Your task to perform on an android device: Turn on the flashlight Image 0: 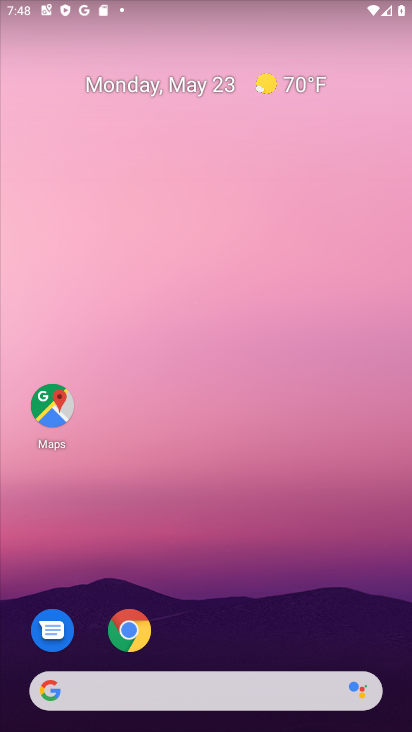
Step 0: drag from (175, 560) to (15, 128)
Your task to perform on an android device: Turn on the flashlight Image 1: 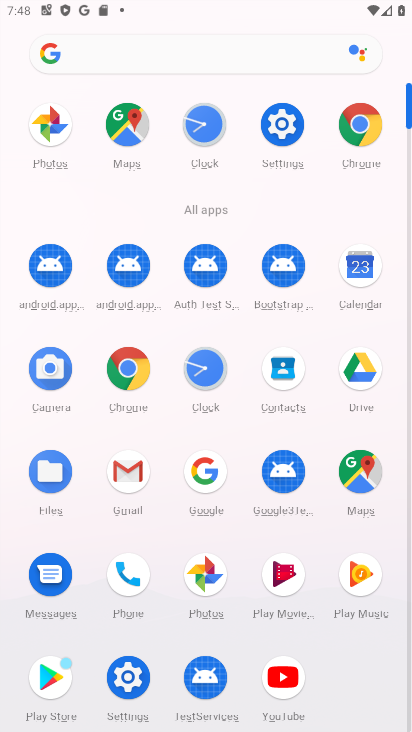
Step 1: click (290, 135)
Your task to perform on an android device: Turn on the flashlight Image 2: 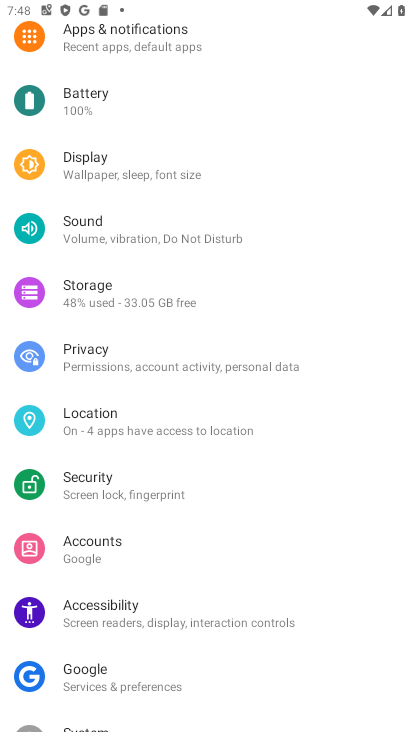
Step 2: click (188, 168)
Your task to perform on an android device: Turn on the flashlight Image 3: 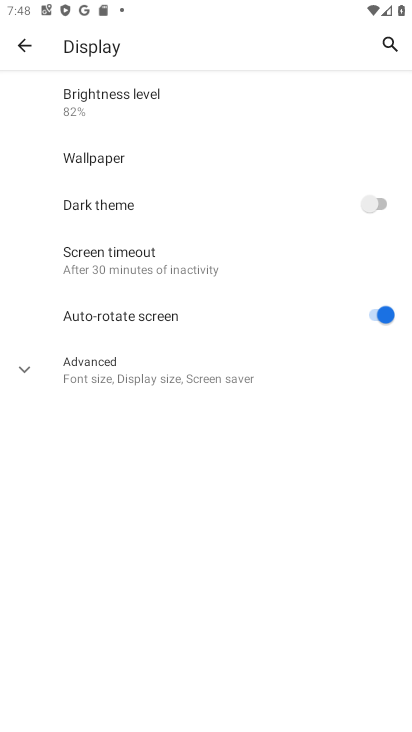
Step 3: task complete